Your task to perform on an android device: check data usage Image 0: 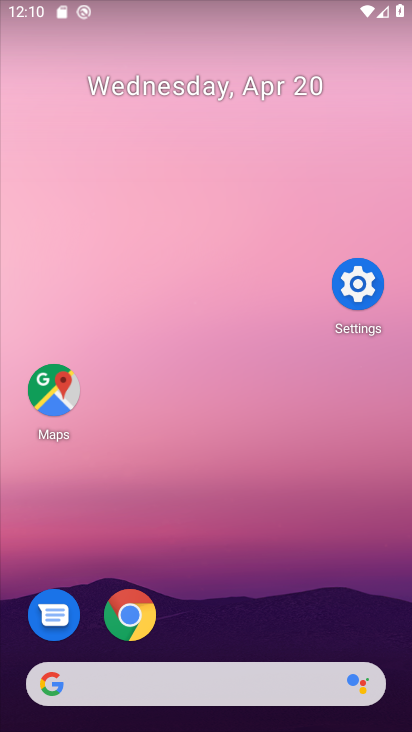
Step 0: drag from (226, 625) to (280, 143)
Your task to perform on an android device: check data usage Image 1: 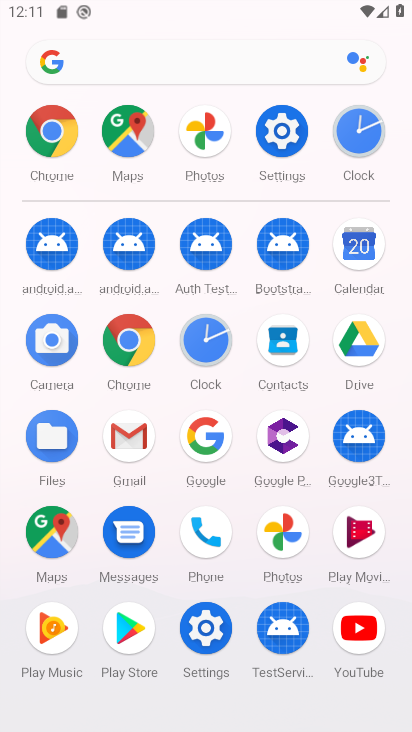
Step 1: click (205, 620)
Your task to perform on an android device: check data usage Image 2: 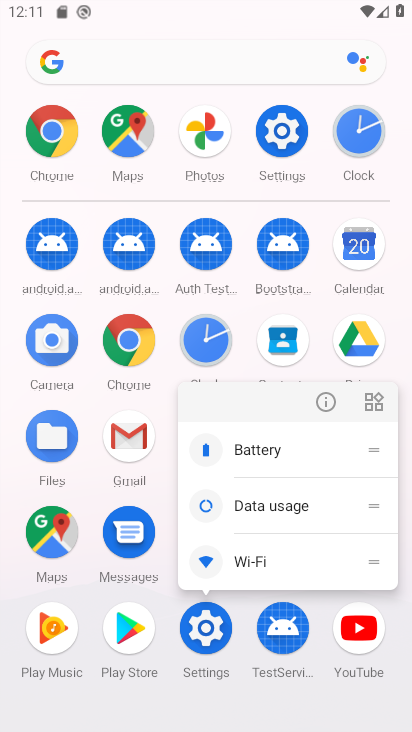
Step 2: click (324, 405)
Your task to perform on an android device: check data usage Image 3: 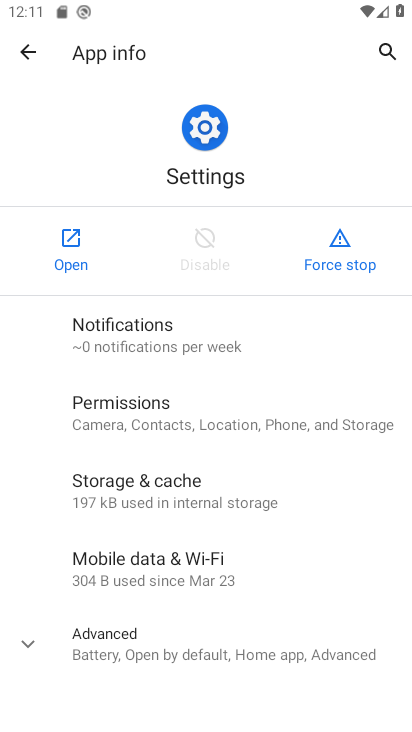
Step 3: click (67, 247)
Your task to perform on an android device: check data usage Image 4: 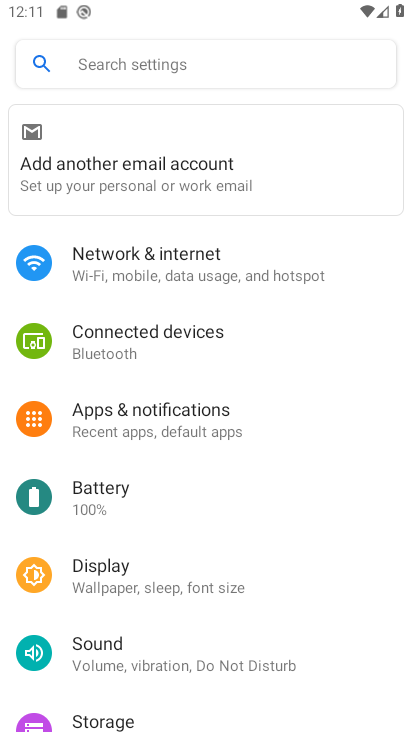
Step 4: click (228, 263)
Your task to perform on an android device: check data usage Image 5: 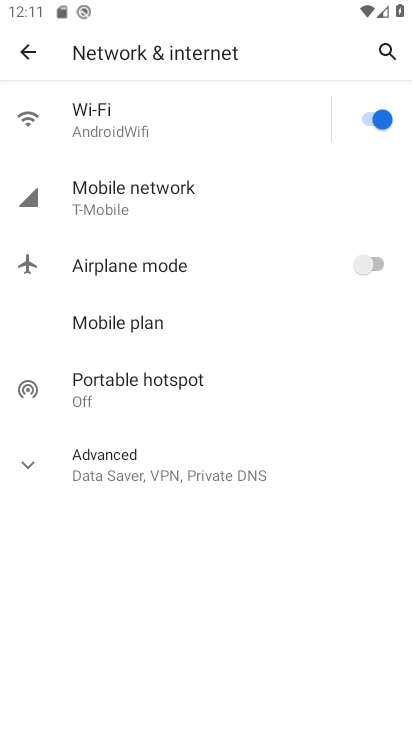
Step 5: click (207, 200)
Your task to perform on an android device: check data usage Image 6: 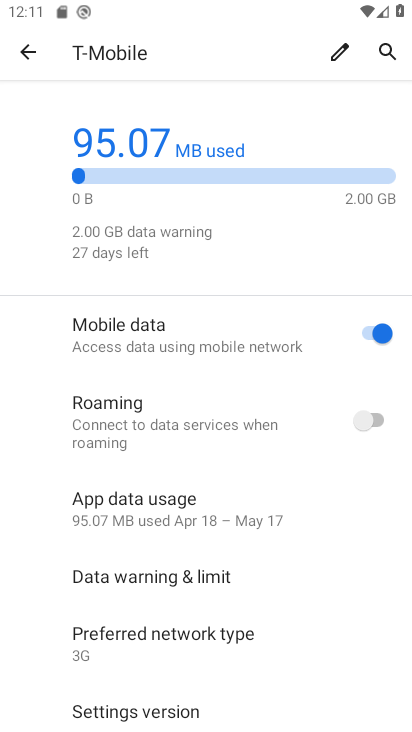
Step 6: task complete